Your task to perform on an android device: uninstall "Calculator" Image 0: 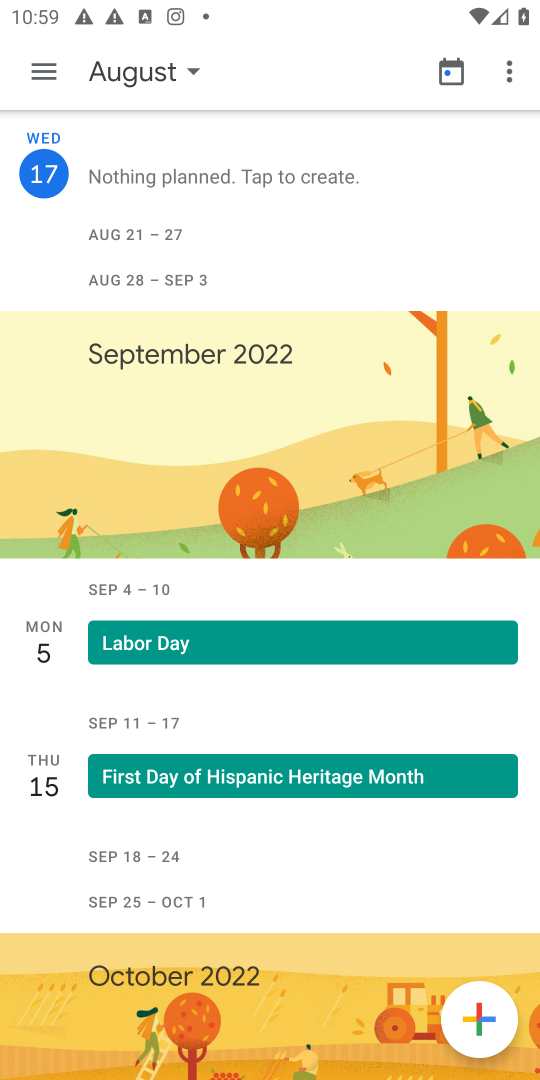
Step 0: press home button
Your task to perform on an android device: uninstall "Calculator" Image 1: 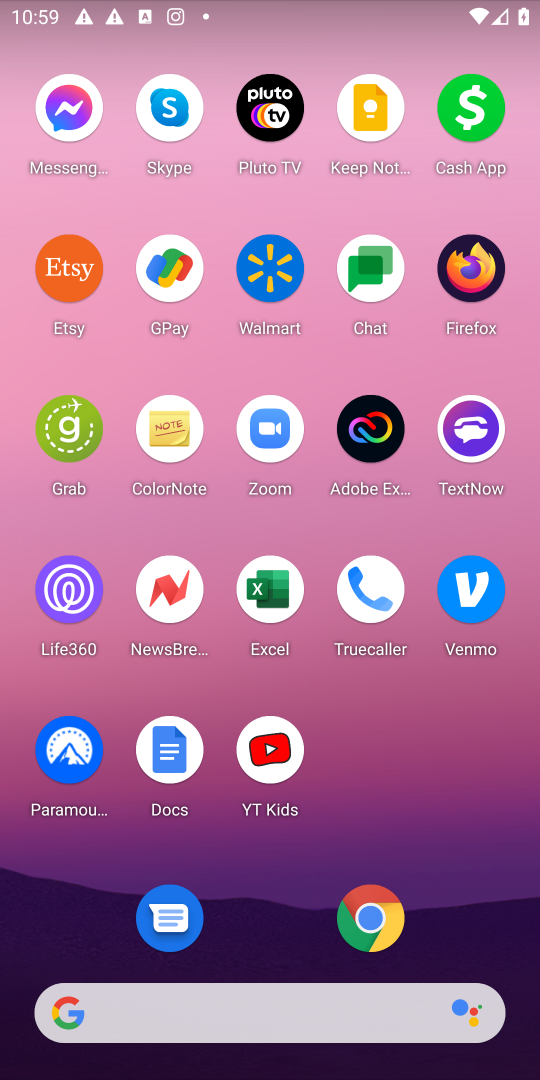
Step 1: press home button
Your task to perform on an android device: uninstall "Calculator" Image 2: 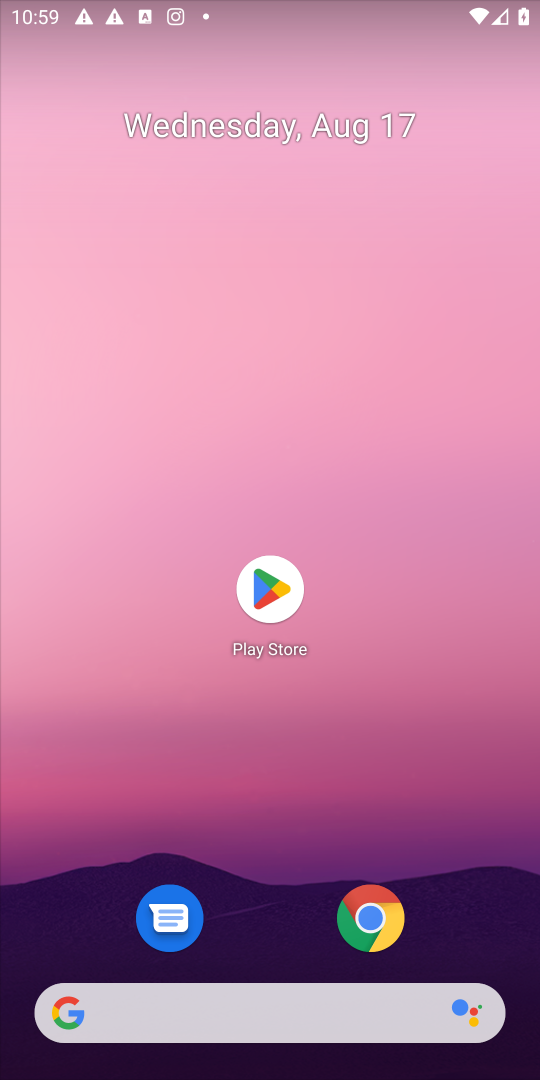
Step 2: click (270, 599)
Your task to perform on an android device: uninstall "Calculator" Image 3: 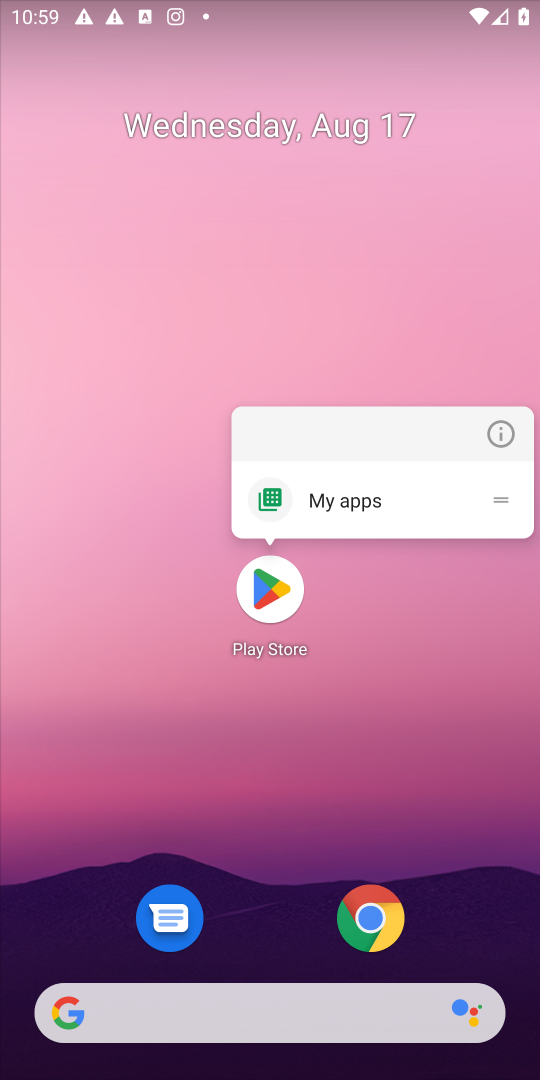
Step 3: click (270, 597)
Your task to perform on an android device: uninstall "Calculator" Image 4: 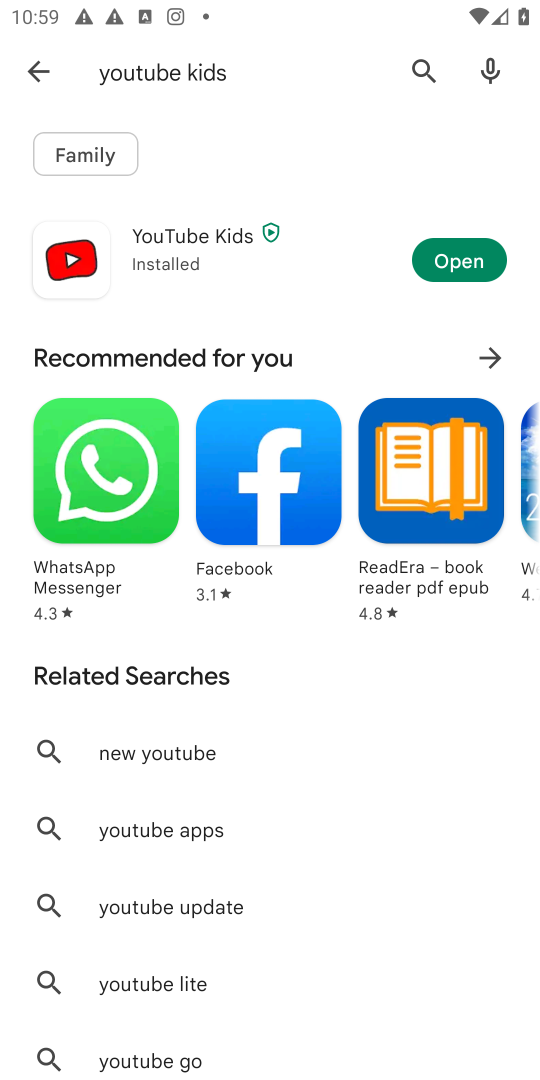
Step 4: click (416, 71)
Your task to perform on an android device: uninstall "Calculator" Image 5: 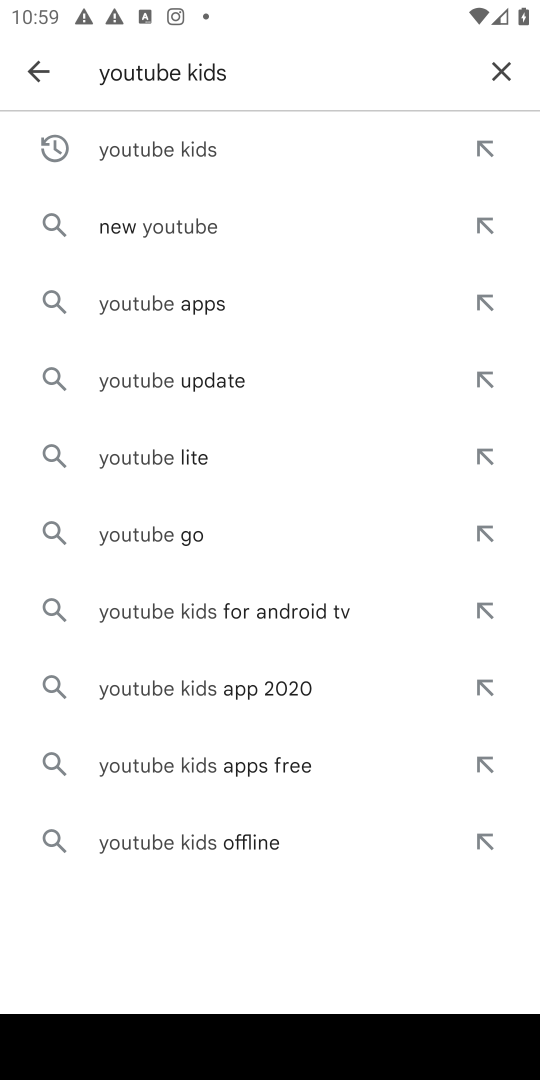
Step 5: click (503, 68)
Your task to perform on an android device: uninstall "Calculator" Image 6: 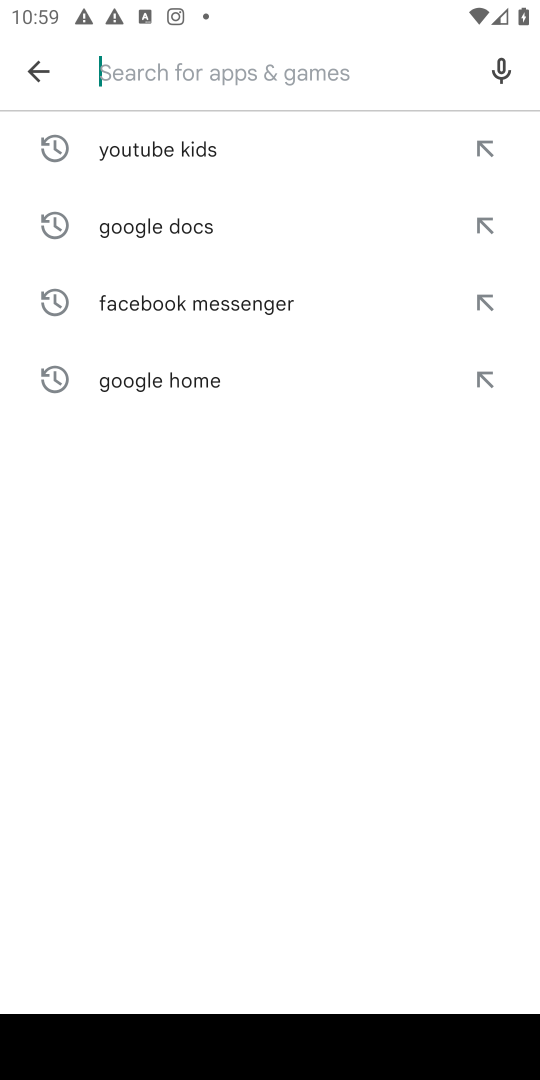
Step 6: type "Calculator"
Your task to perform on an android device: uninstall "Calculator" Image 7: 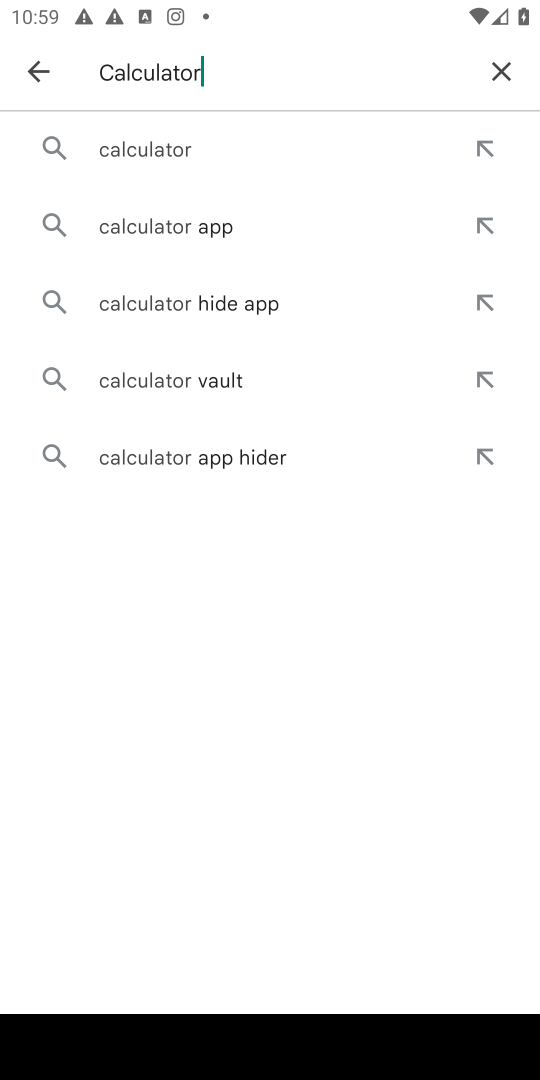
Step 7: click (167, 154)
Your task to perform on an android device: uninstall "Calculator" Image 8: 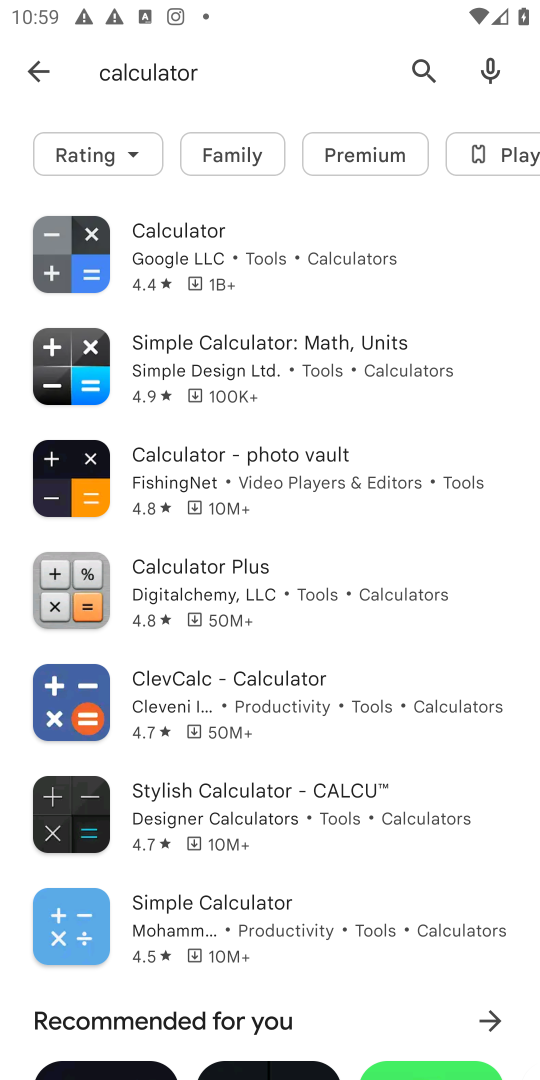
Step 8: click (245, 254)
Your task to perform on an android device: uninstall "Calculator" Image 9: 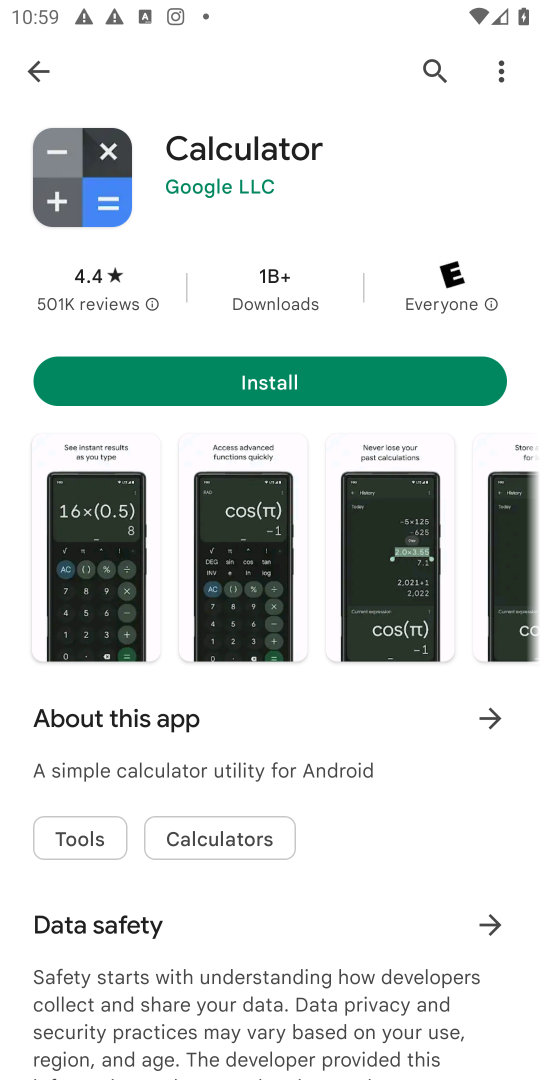
Step 9: task complete